Your task to perform on an android device: Go to Yahoo.com Image 0: 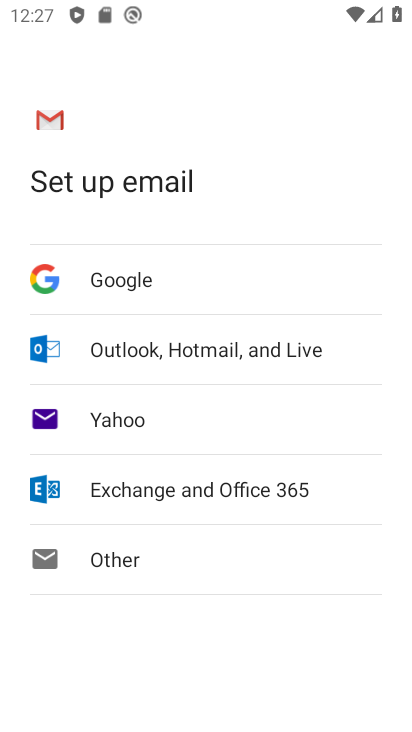
Step 0: press home button
Your task to perform on an android device: Go to Yahoo.com Image 1: 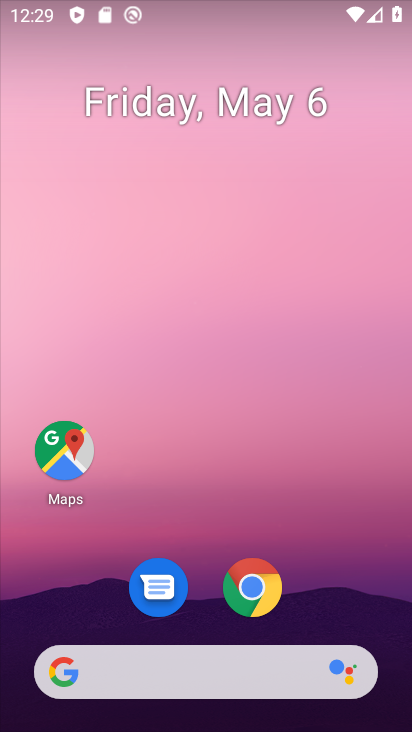
Step 1: click (237, 586)
Your task to perform on an android device: Go to Yahoo.com Image 2: 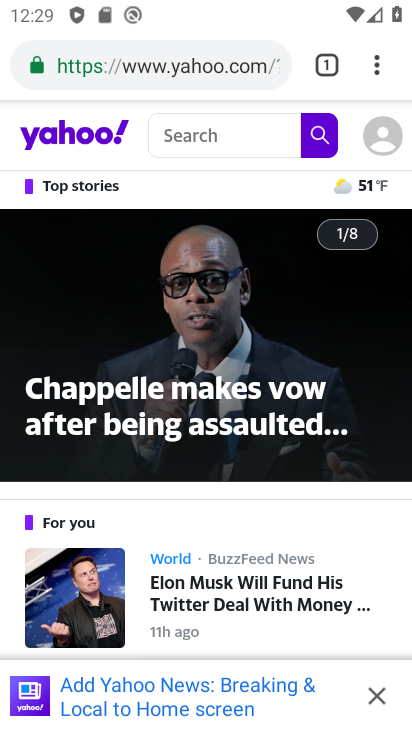
Step 2: task complete